Your task to perform on an android device: open device folders in google photos Image 0: 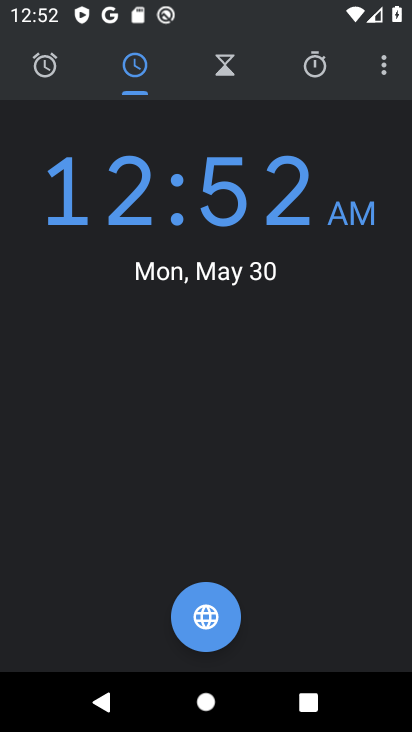
Step 0: press home button
Your task to perform on an android device: open device folders in google photos Image 1: 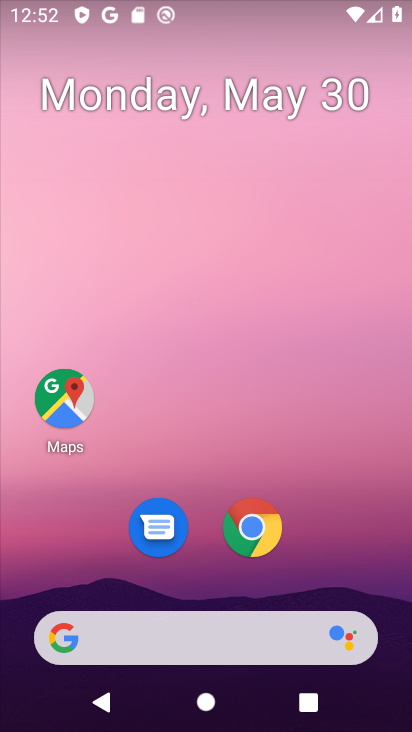
Step 1: drag from (312, 547) to (257, 49)
Your task to perform on an android device: open device folders in google photos Image 2: 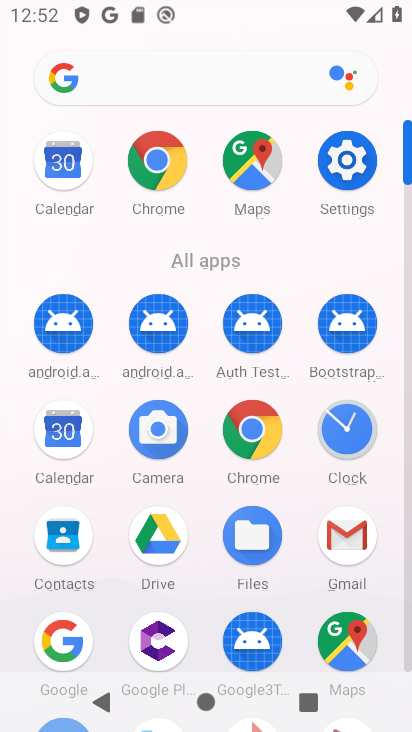
Step 2: click (407, 637)
Your task to perform on an android device: open device folders in google photos Image 3: 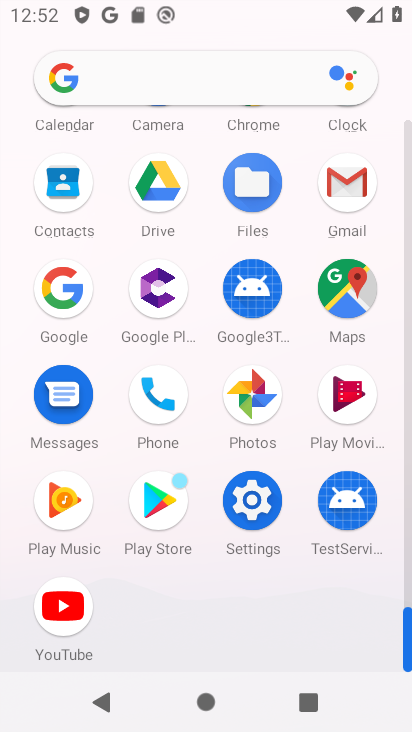
Step 3: click (267, 380)
Your task to perform on an android device: open device folders in google photos Image 4: 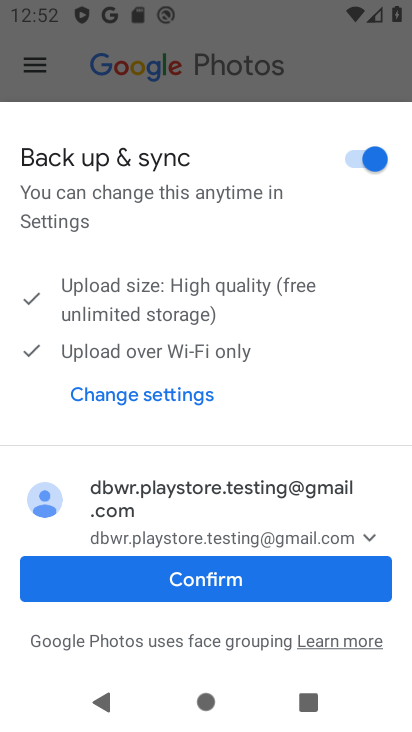
Step 4: click (265, 564)
Your task to perform on an android device: open device folders in google photos Image 5: 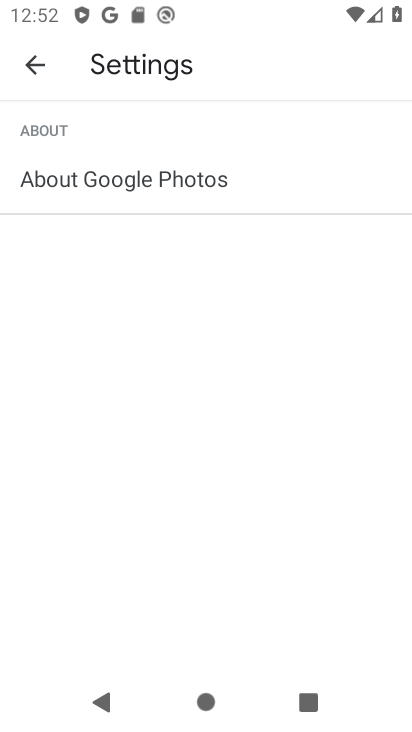
Step 5: click (34, 55)
Your task to perform on an android device: open device folders in google photos Image 6: 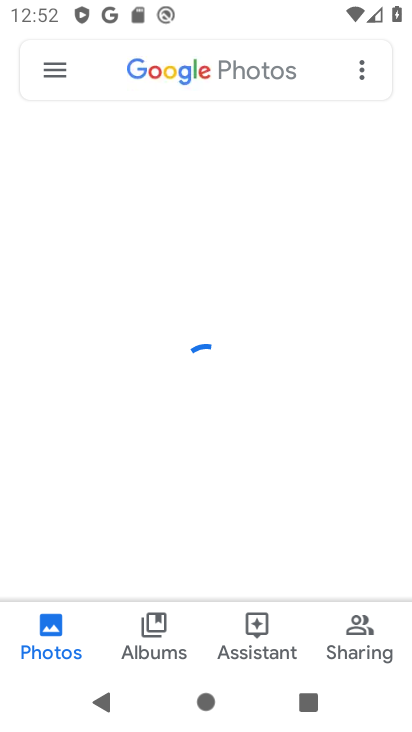
Step 6: click (53, 62)
Your task to perform on an android device: open device folders in google photos Image 7: 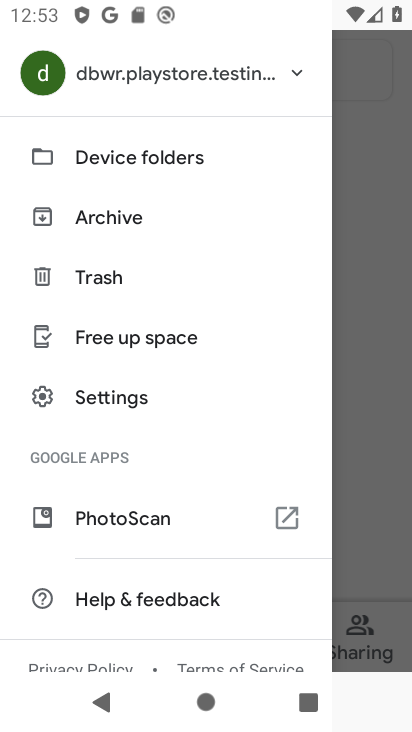
Step 7: click (147, 162)
Your task to perform on an android device: open device folders in google photos Image 8: 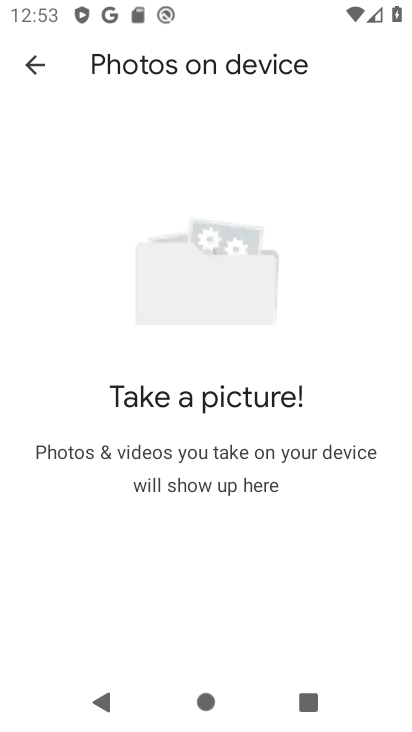
Step 8: task complete